Your task to perform on an android device: turn on improve location accuracy Image 0: 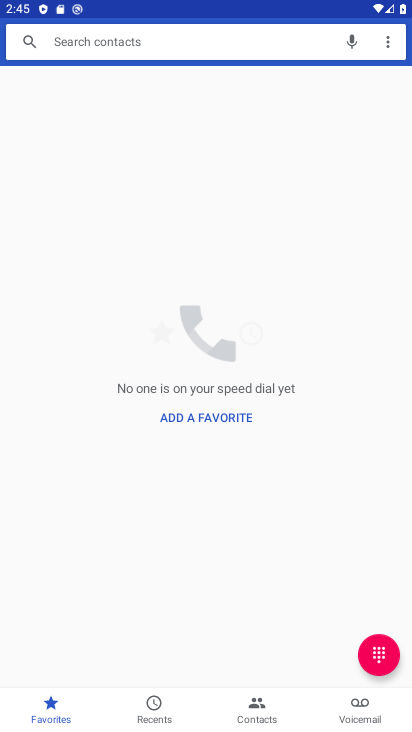
Step 0: press home button
Your task to perform on an android device: turn on improve location accuracy Image 1: 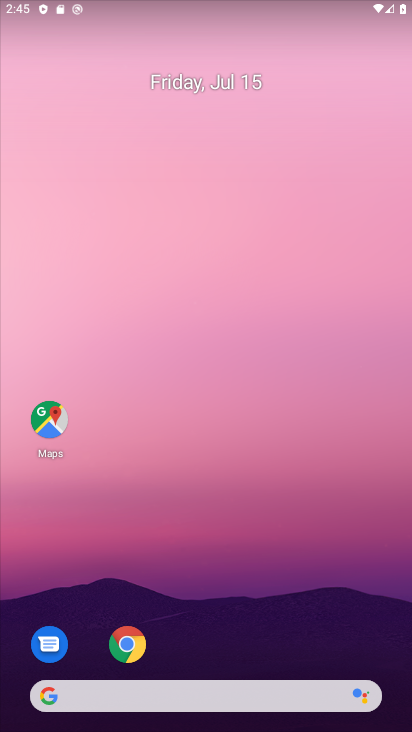
Step 1: drag from (329, 686) to (288, 46)
Your task to perform on an android device: turn on improve location accuracy Image 2: 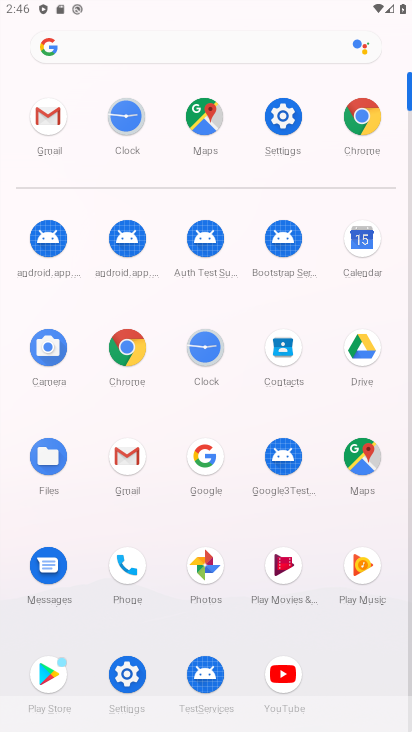
Step 2: click (283, 113)
Your task to perform on an android device: turn on improve location accuracy Image 3: 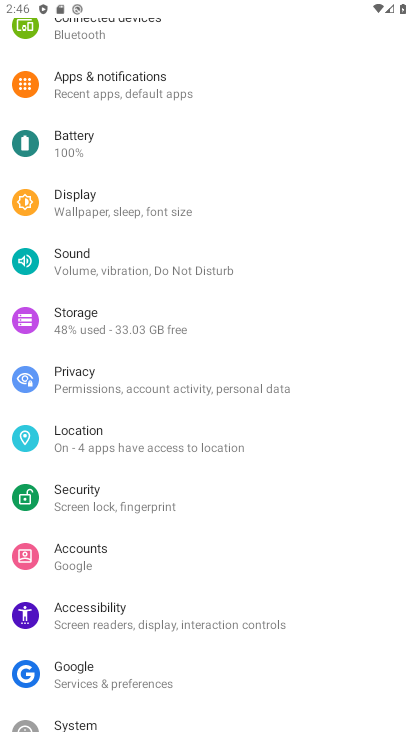
Step 3: click (118, 447)
Your task to perform on an android device: turn on improve location accuracy Image 4: 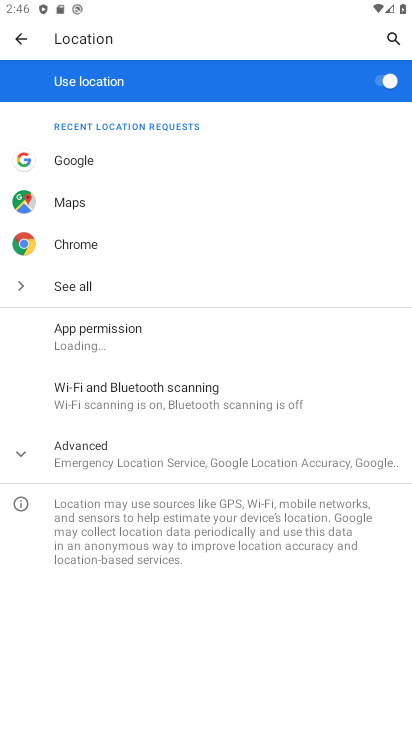
Step 4: click (127, 461)
Your task to perform on an android device: turn on improve location accuracy Image 5: 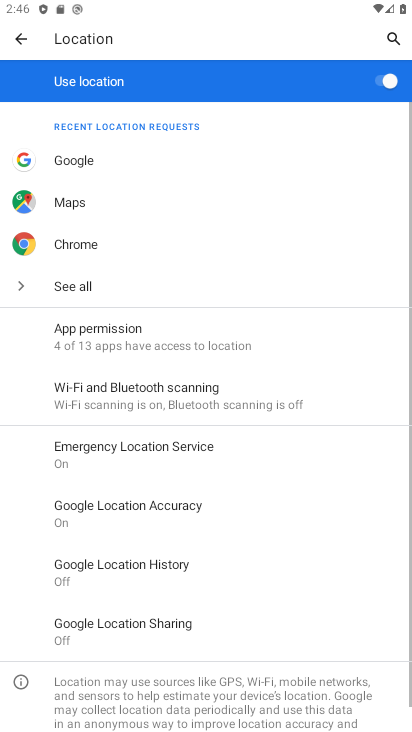
Step 5: click (162, 503)
Your task to perform on an android device: turn on improve location accuracy Image 6: 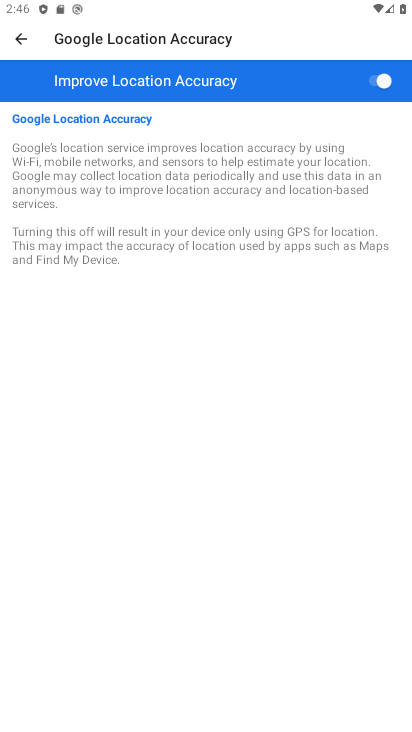
Step 6: task complete